Your task to perform on an android device: check the backup settings in the google photos Image 0: 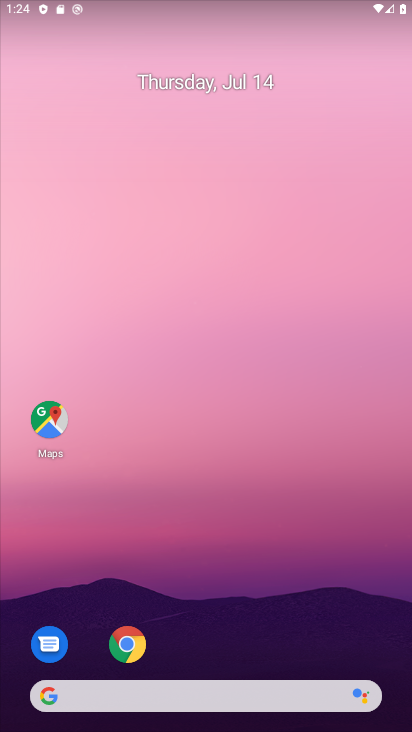
Step 0: drag from (196, 674) to (296, 175)
Your task to perform on an android device: check the backup settings in the google photos Image 1: 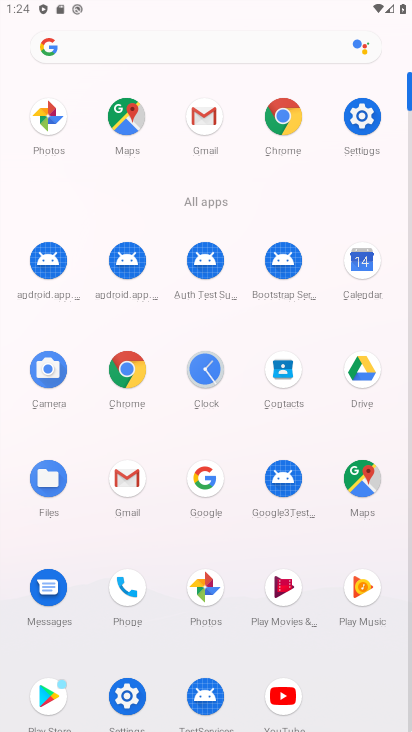
Step 1: click (196, 597)
Your task to perform on an android device: check the backup settings in the google photos Image 2: 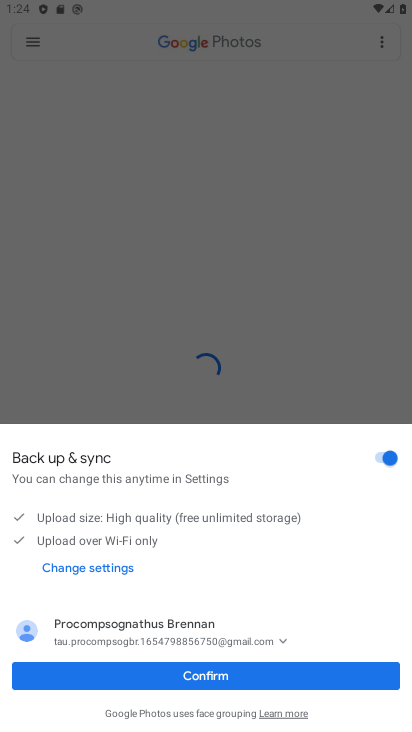
Step 2: click (215, 679)
Your task to perform on an android device: check the backup settings in the google photos Image 3: 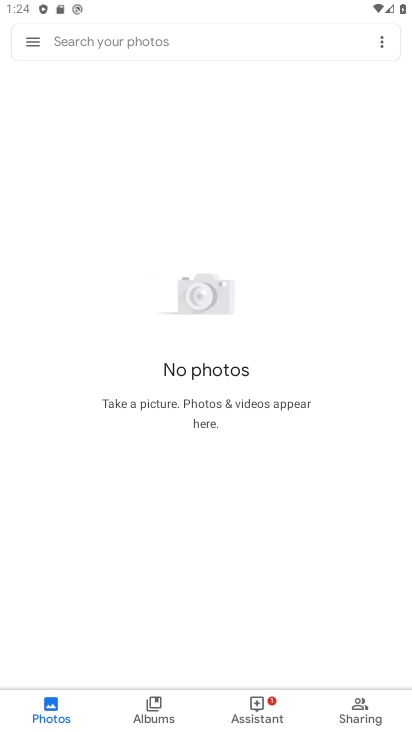
Step 3: click (34, 32)
Your task to perform on an android device: check the backup settings in the google photos Image 4: 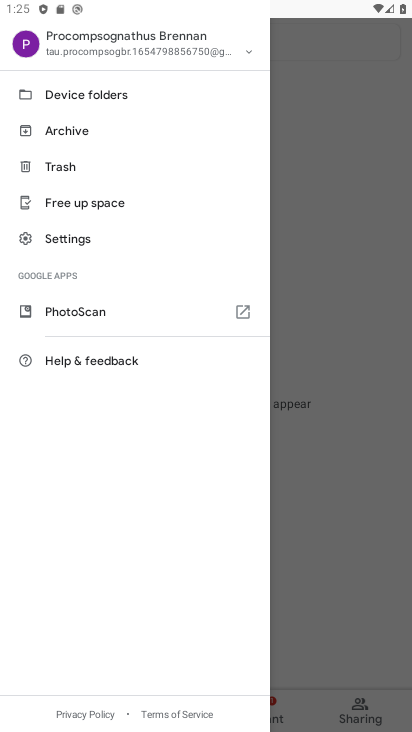
Step 4: click (107, 240)
Your task to perform on an android device: check the backup settings in the google photos Image 5: 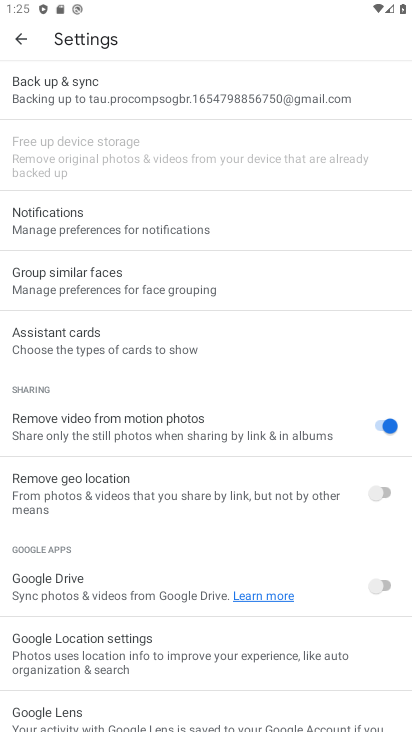
Step 5: click (114, 95)
Your task to perform on an android device: check the backup settings in the google photos Image 6: 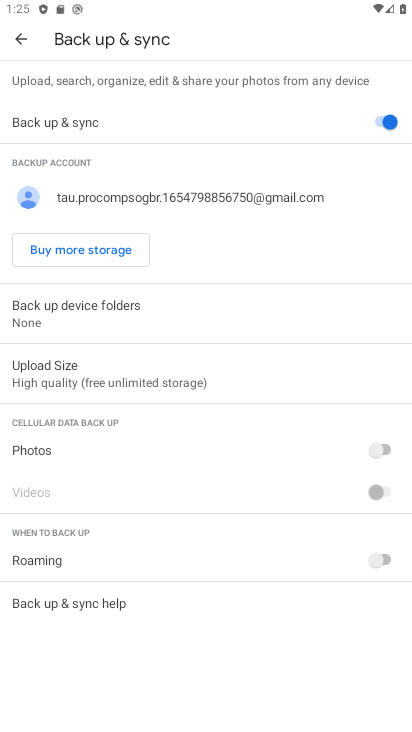
Step 6: task complete